Your task to perform on an android device: check android version Image 0: 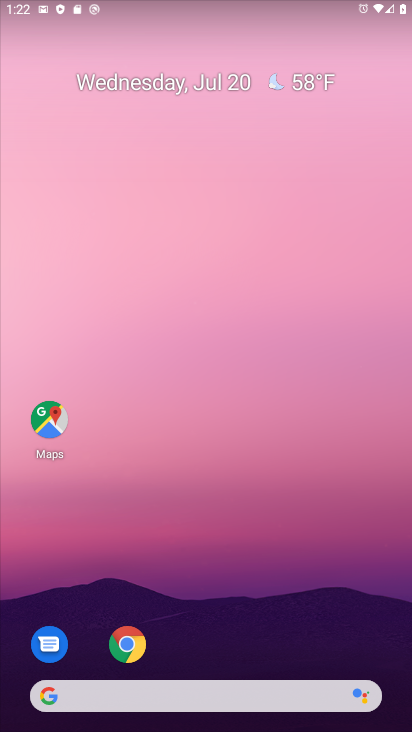
Step 0: drag from (211, 636) to (225, 101)
Your task to perform on an android device: check android version Image 1: 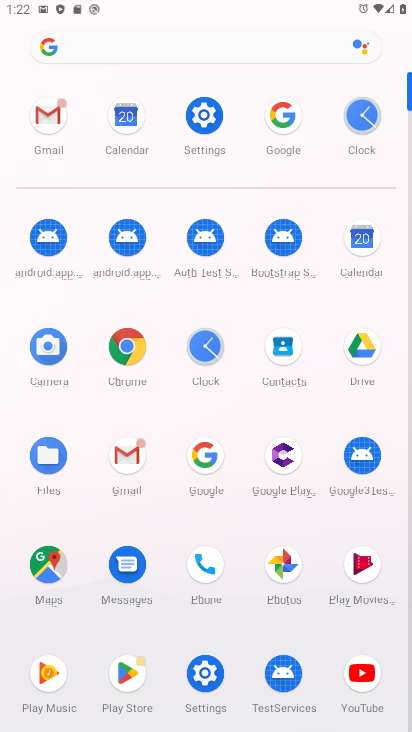
Step 1: click (197, 113)
Your task to perform on an android device: check android version Image 2: 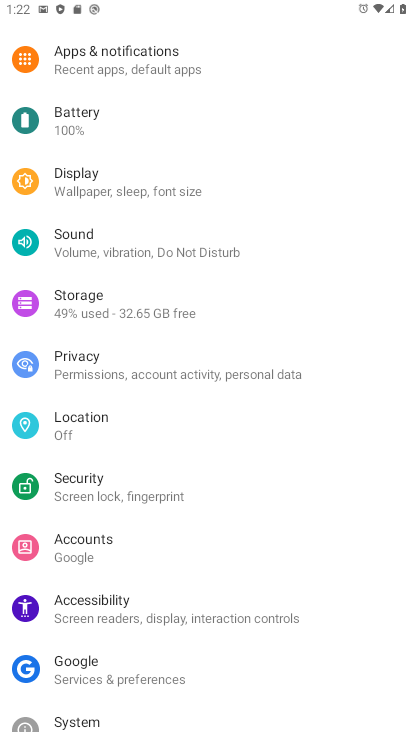
Step 2: drag from (178, 692) to (216, 345)
Your task to perform on an android device: check android version Image 3: 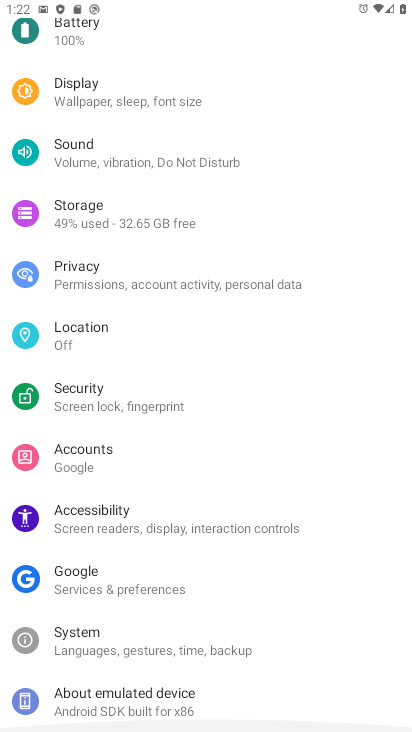
Step 3: click (147, 703)
Your task to perform on an android device: check android version Image 4: 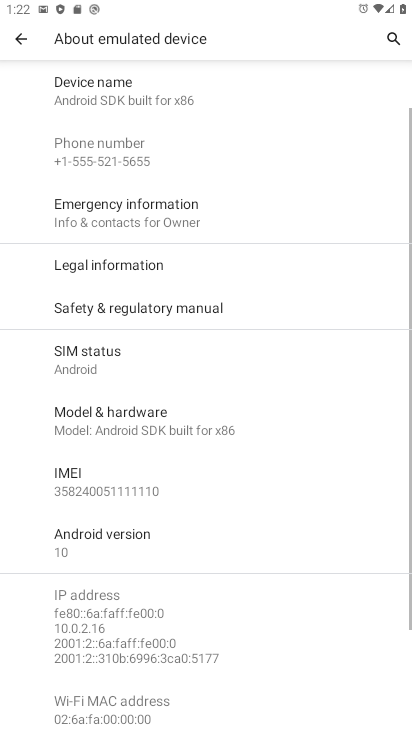
Step 4: click (116, 546)
Your task to perform on an android device: check android version Image 5: 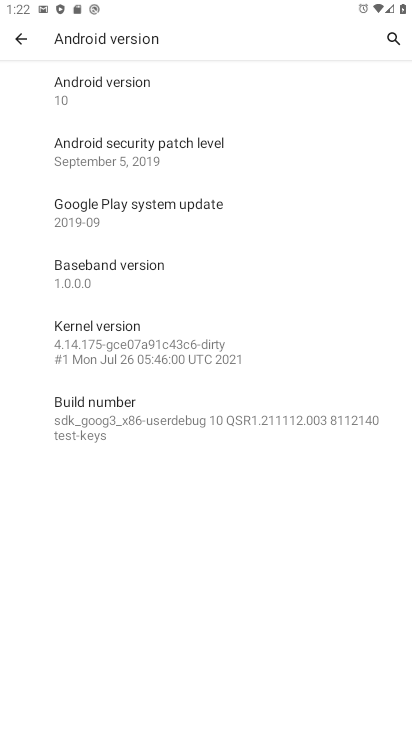
Step 5: task complete